Your task to perform on an android device: check google app version Image 0: 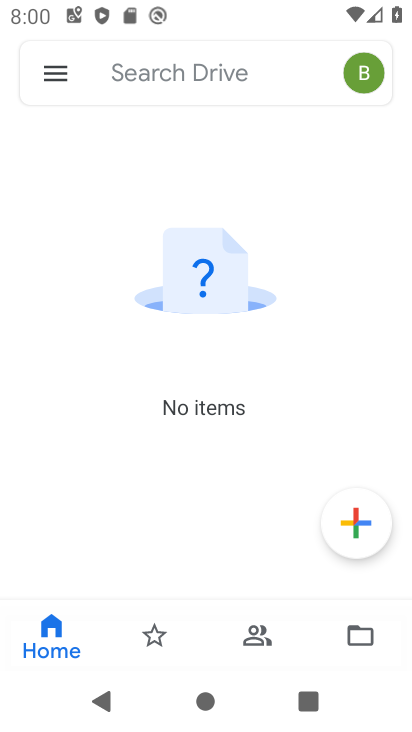
Step 0: press home button
Your task to perform on an android device: check google app version Image 1: 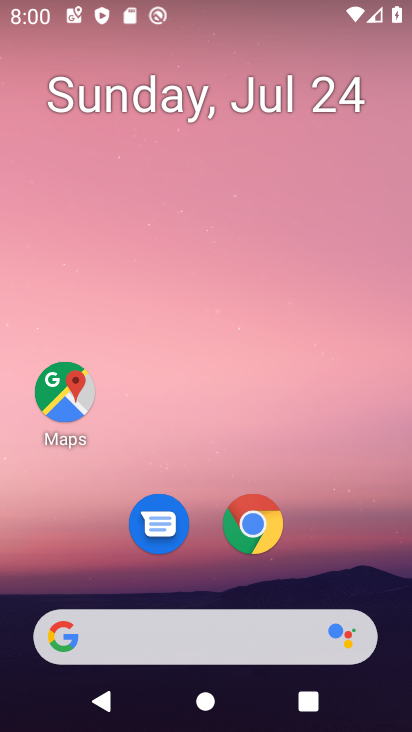
Step 1: drag from (191, 626) to (350, 37)
Your task to perform on an android device: check google app version Image 2: 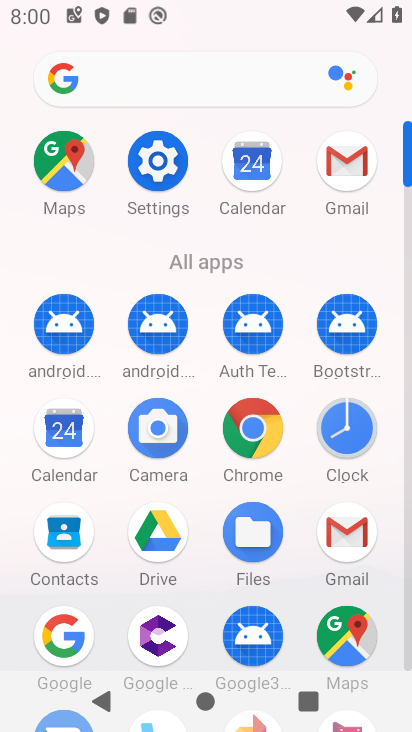
Step 2: click (67, 633)
Your task to perform on an android device: check google app version Image 3: 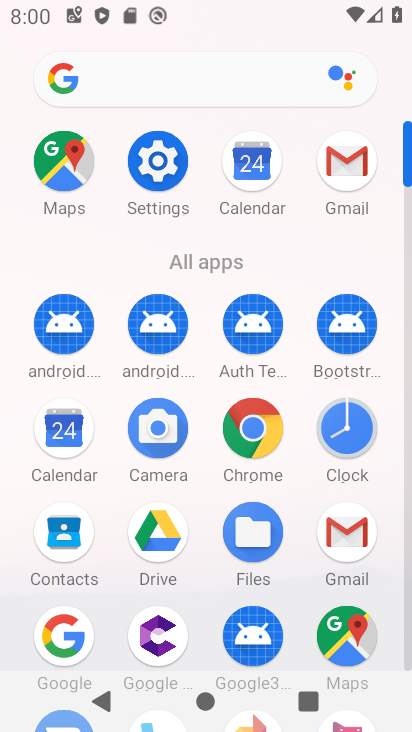
Step 3: click (209, 420)
Your task to perform on an android device: check google app version Image 4: 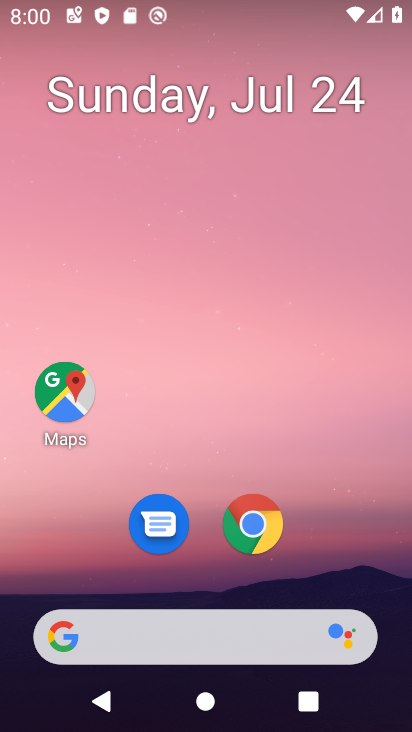
Step 4: drag from (121, 626) to (317, 30)
Your task to perform on an android device: check google app version Image 5: 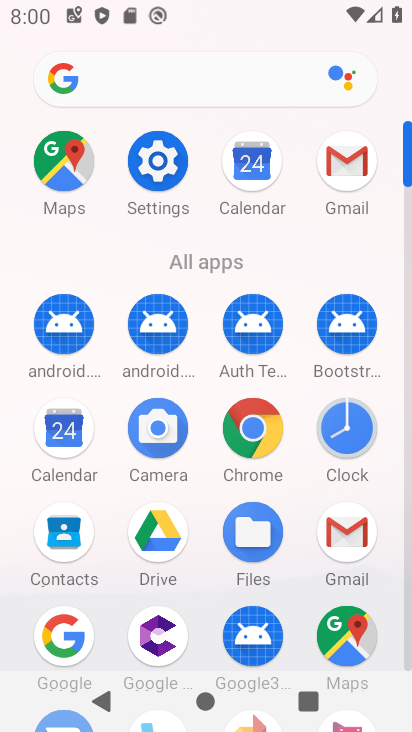
Step 5: drag from (74, 636) to (104, 601)
Your task to perform on an android device: check google app version Image 6: 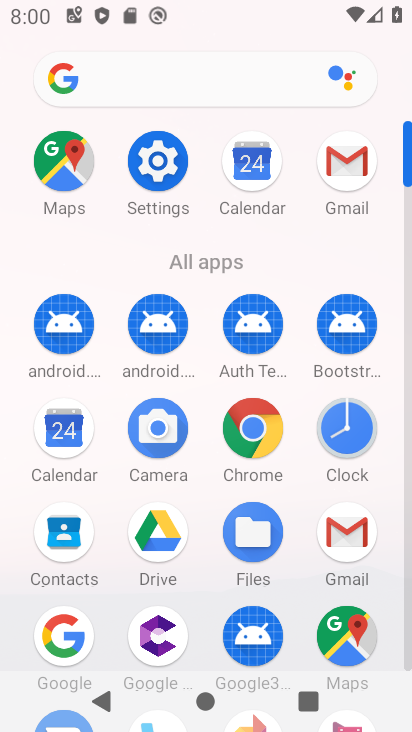
Step 6: click (219, 428)
Your task to perform on an android device: check google app version Image 7: 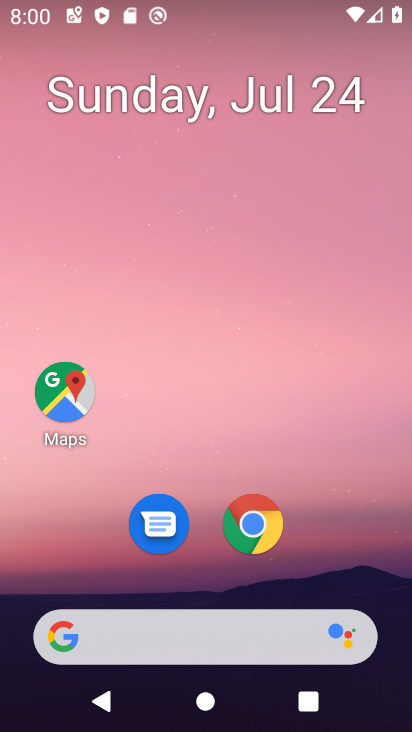
Step 7: drag from (152, 629) to (381, 1)
Your task to perform on an android device: check google app version Image 8: 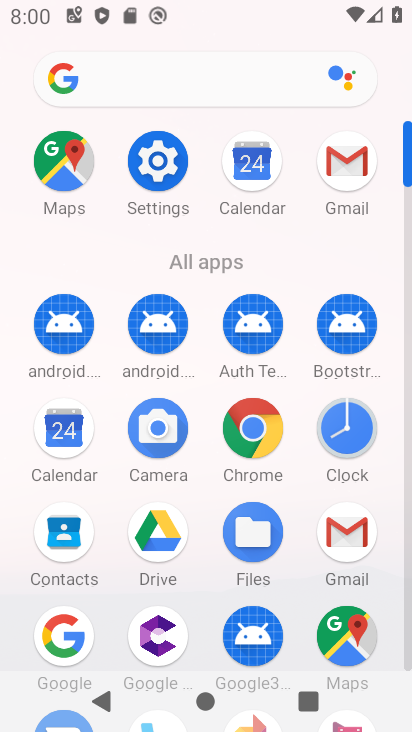
Step 8: drag from (72, 637) to (285, 339)
Your task to perform on an android device: check google app version Image 9: 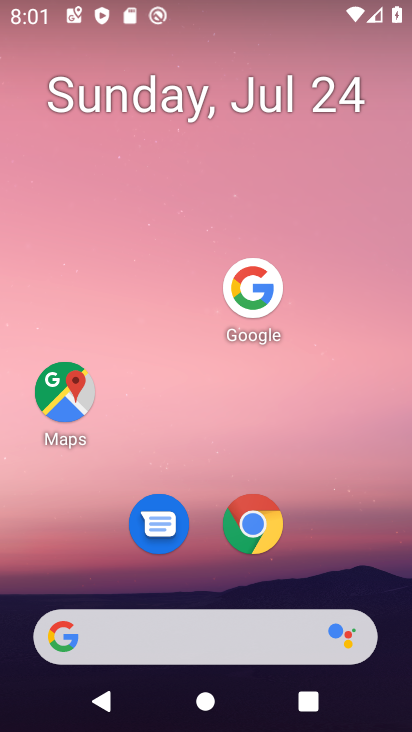
Step 9: click (255, 288)
Your task to perform on an android device: check google app version Image 10: 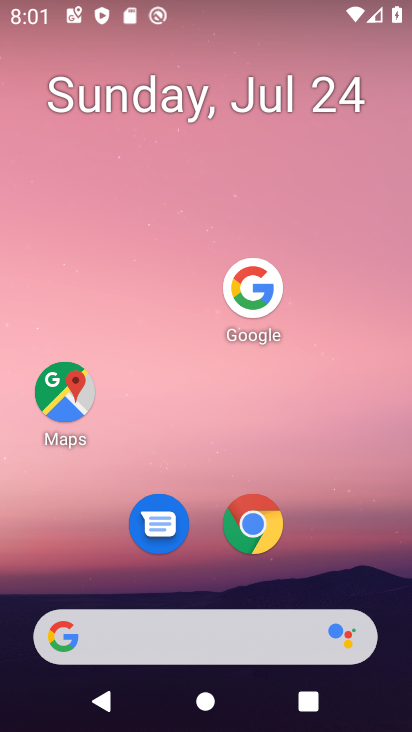
Step 10: click (194, 76)
Your task to perform on an android device: check google app version Image 11: 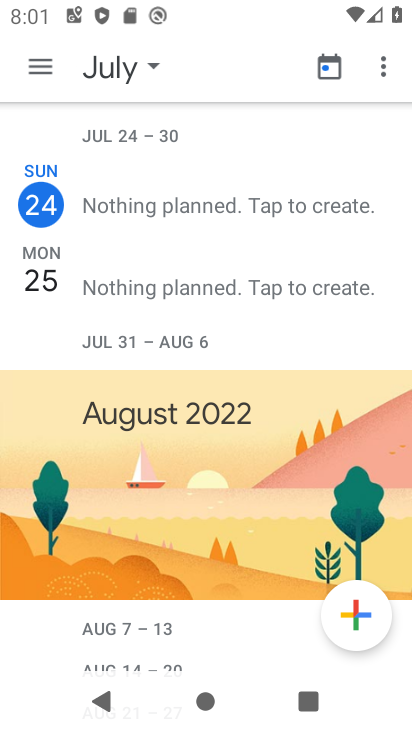
Step 11: drag from (262, 291) to (274, 342)
Your task to perform on an android device: check google app version Image 12: 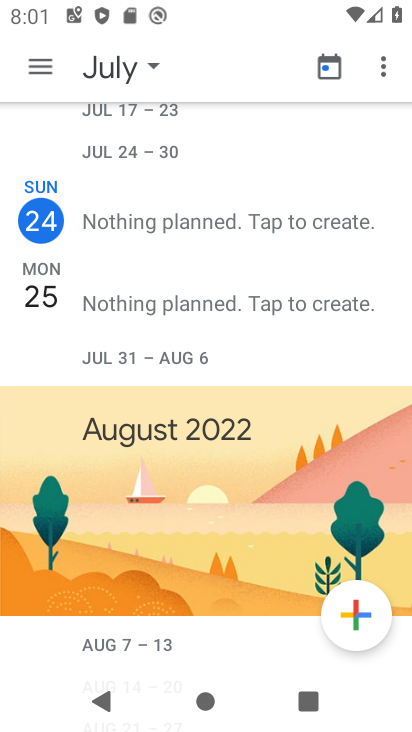
Step 12: press back button
Your task to perform on an android device: check google app version Image 13: 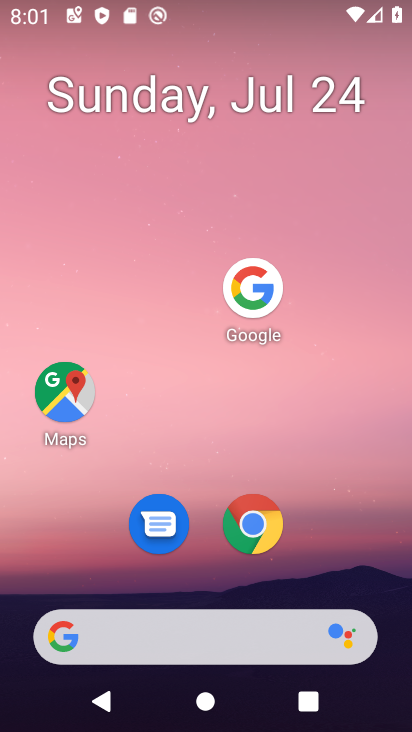
Step 13: drag from (248, 296) to (201, 401)
Your task to perform on an android device: check google app version Image 14: 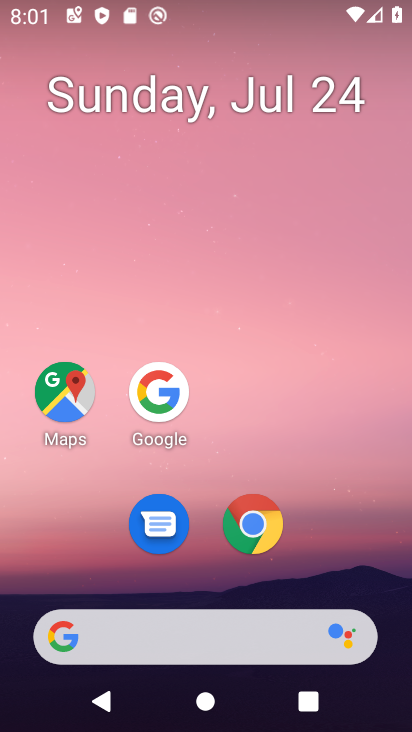
Step 14: click (167, 397)
Your task to perform on an android device: check google app version Image 15: 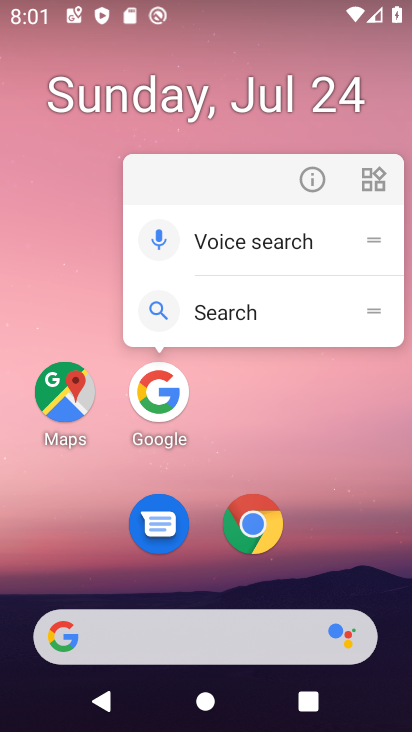
Step 15: click (314, 180)
Your task to perform on an android device: check google app version Image 16: 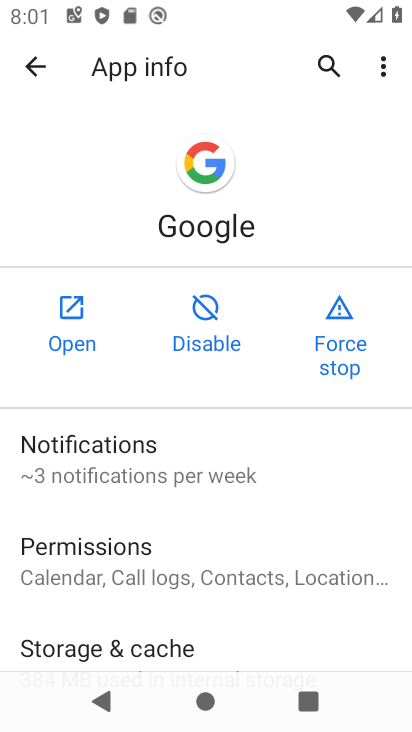
Step 16: drag from (262, 579) to (365, 0)
Your task to perform on an android device: check google app version Image 17: 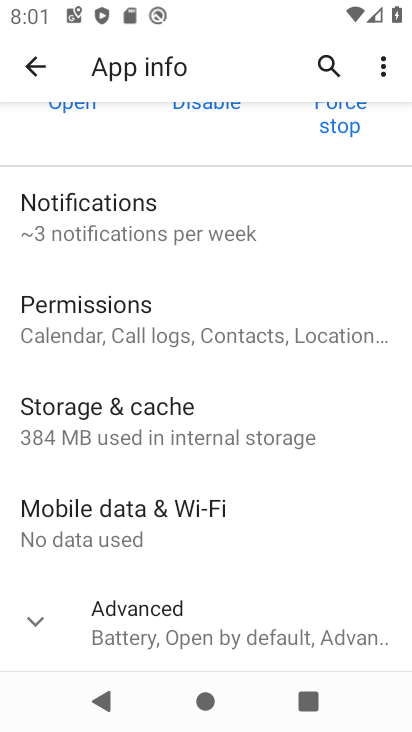
Step 17: click (160, 619)
Your task to perform on an android device: check google app version Image 18: 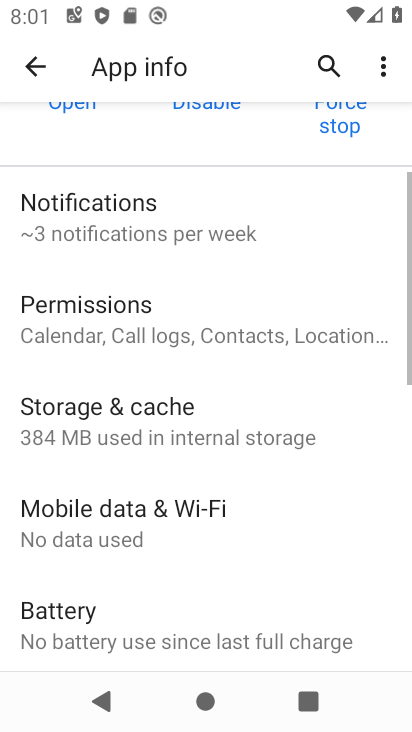
Step 18: task complete